Your task to perform on an android device: Go to Android settings Image 0: 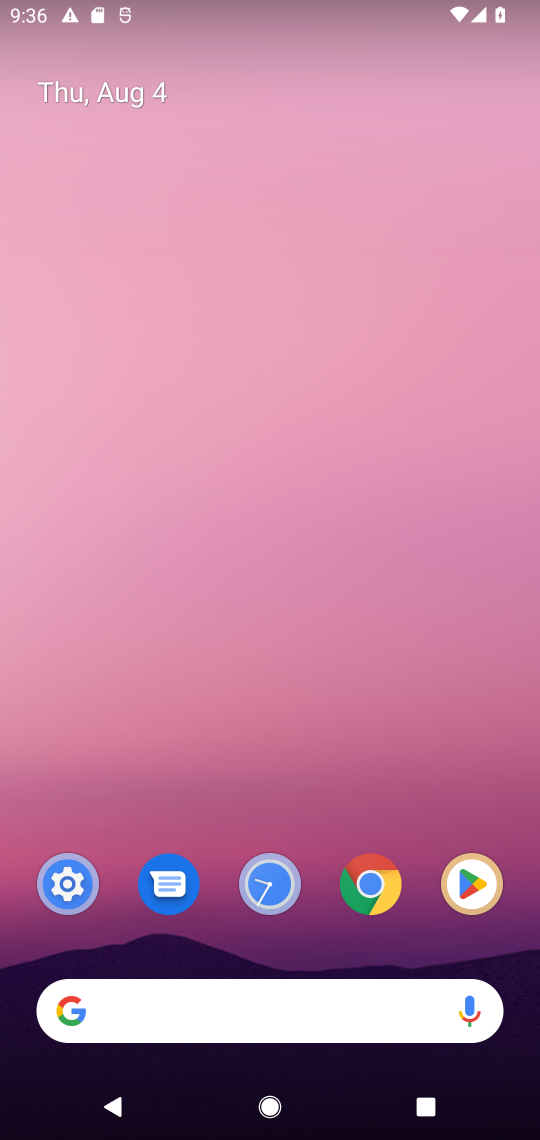
Step 0: drag from (223, 277) to (235, 18)
Your task to perform on an android device: Go to Android settings Image 1: 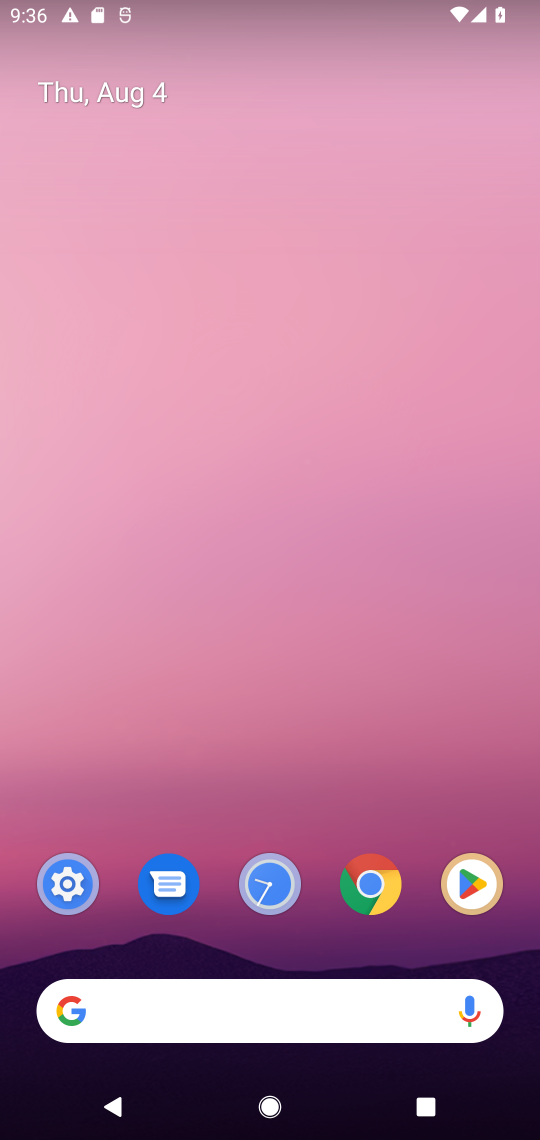
Step 1: drag from (353, 642) to (284, 53)
Your task to perform on an android device: Go to Android settings Image 2: 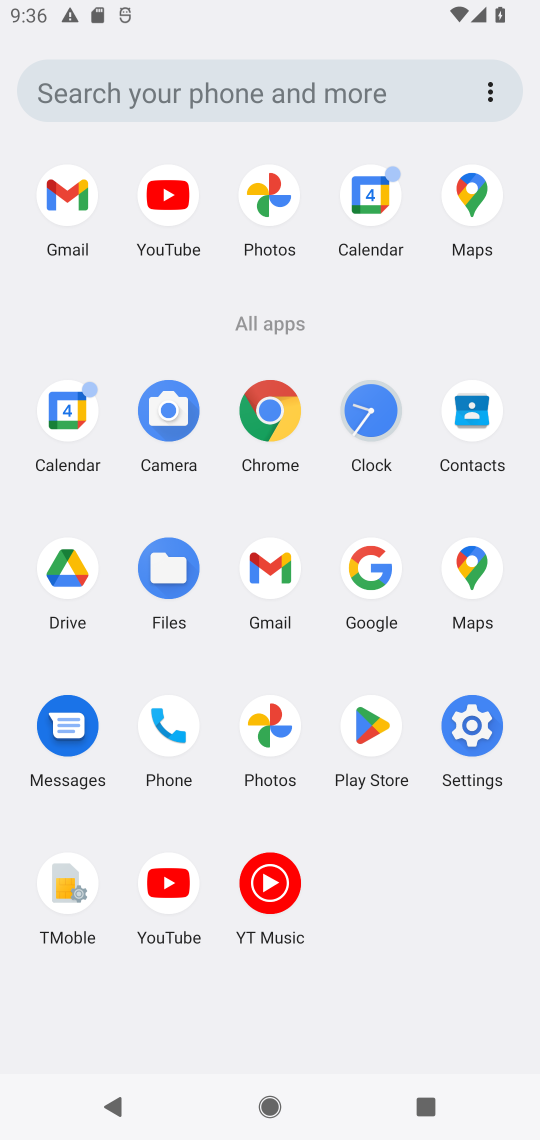
Step 2: click (464, 734)
Your task to perform on an android device: Go to Android settings Image 3: 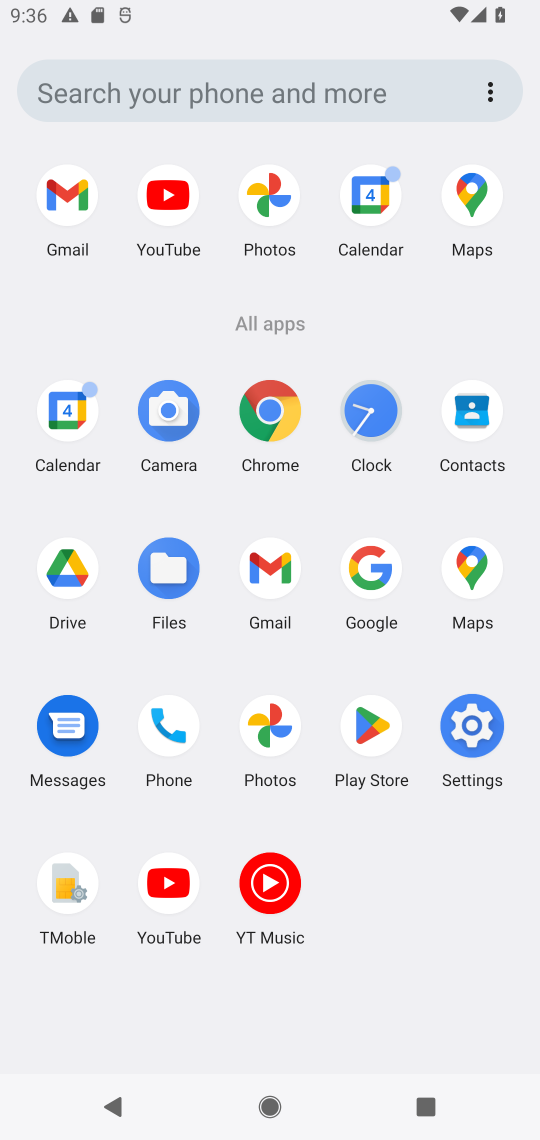
Step 3: click (464, 734)
Your task to perform on an android device: Go to Android settings Image 4: 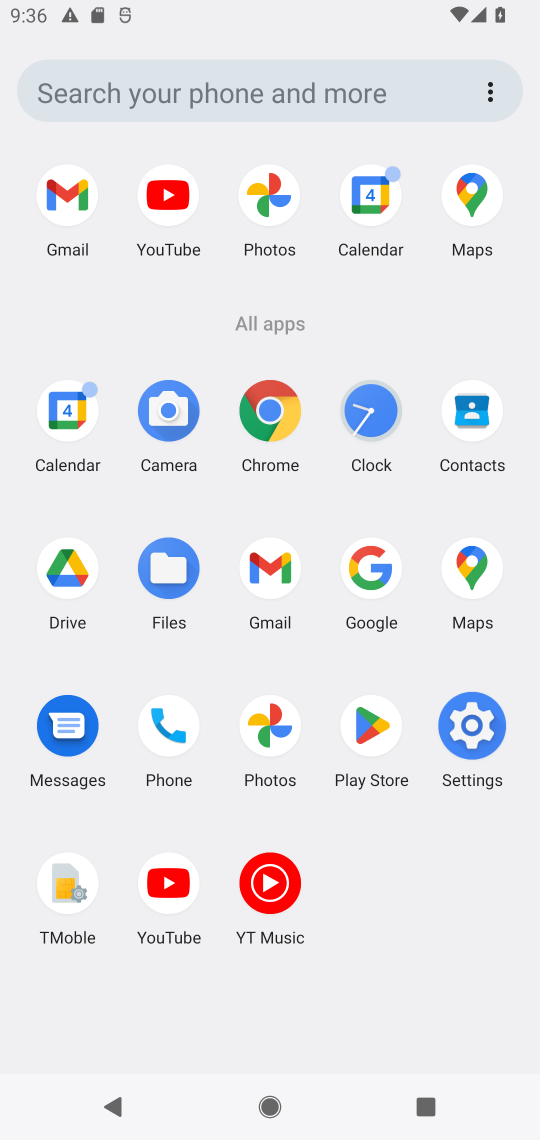
Step 4: click (464, 734)
Your task to perform on an android device: Go to Android settings Image 5: 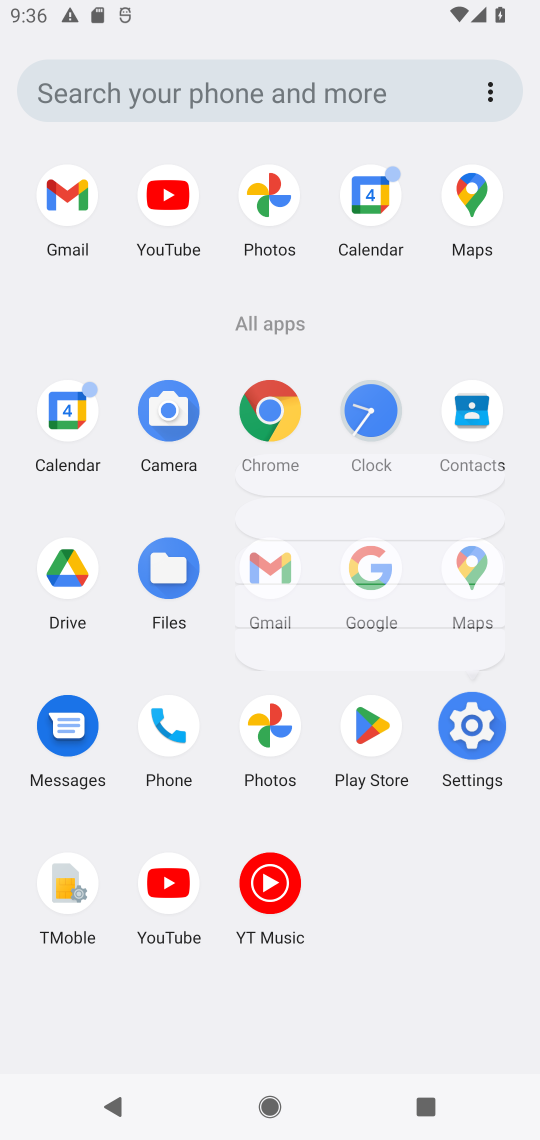
Step 5: click (464, 734)
Your task to perform on an android device: Go to Android settings Image 6: 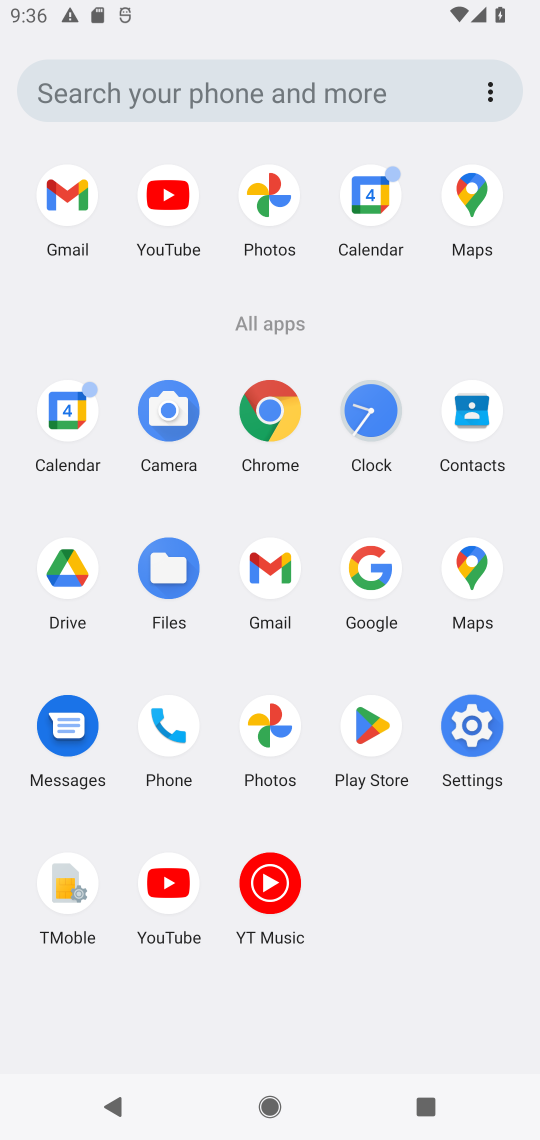
Step 6: click (464, 737)
Your task to perform on an android device: Go to Android settings Image 7: 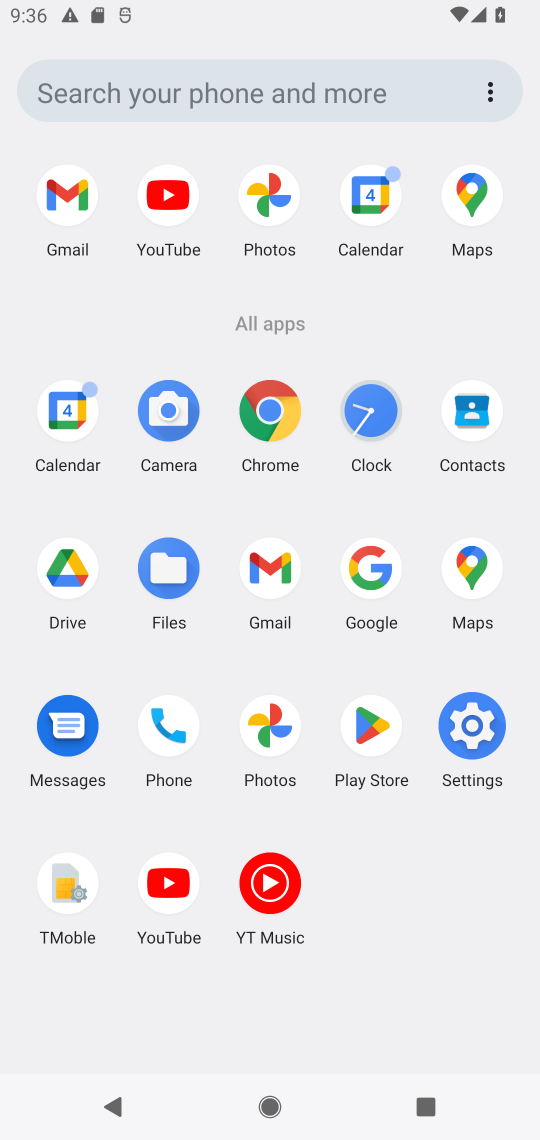
Step 7: click (457, 748)
Your task to perform on an android device: Go to Android settings Image 8: 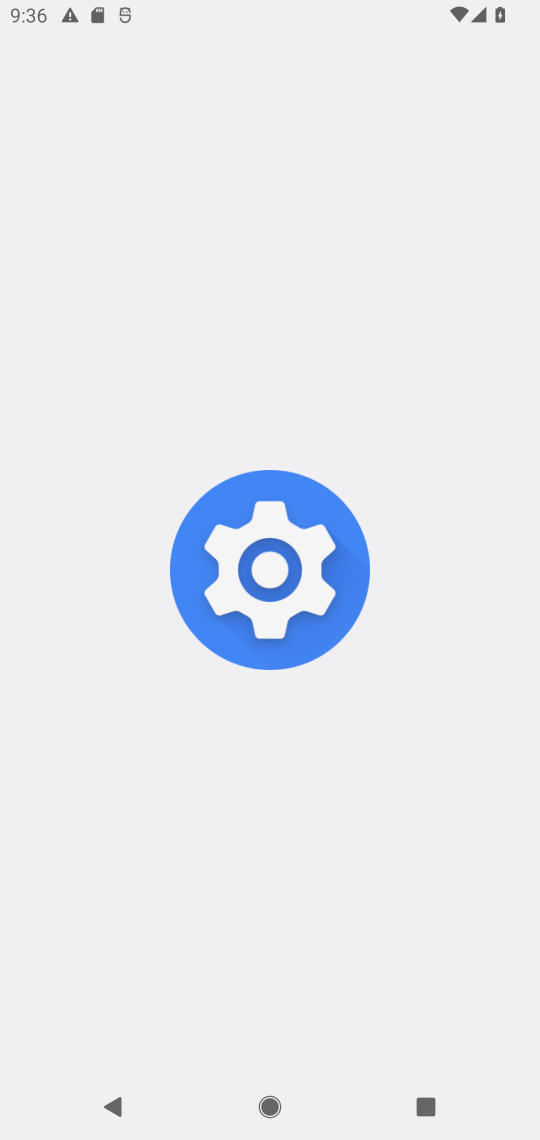
Step 8: click (459, 748)
Your task to perform on an android device: Go to Android settings Image 9: 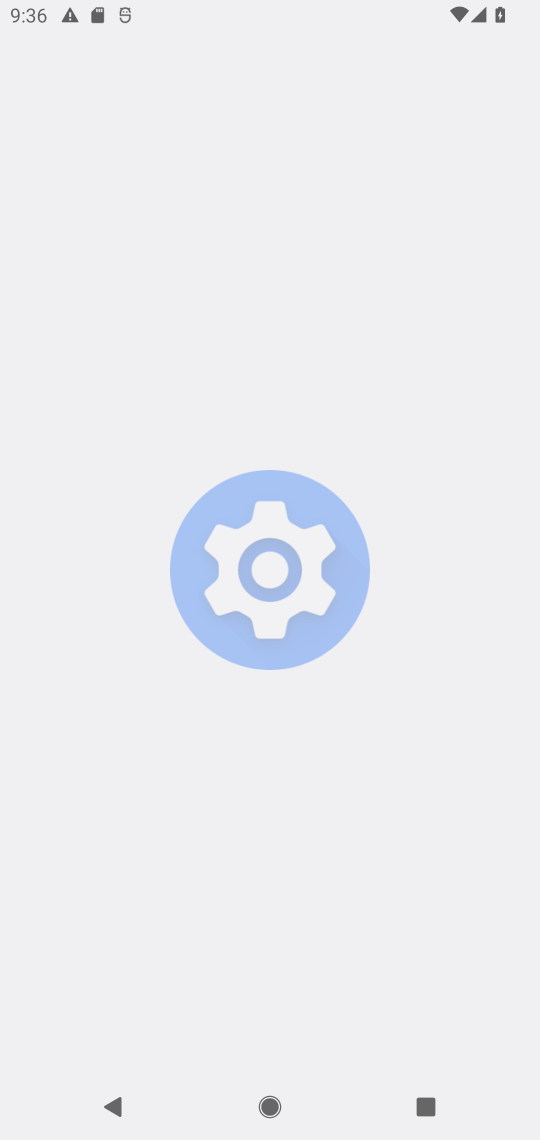
Step 9: click (463, 736)
Your task to perform on an android device: Go to Android settings Image 10: 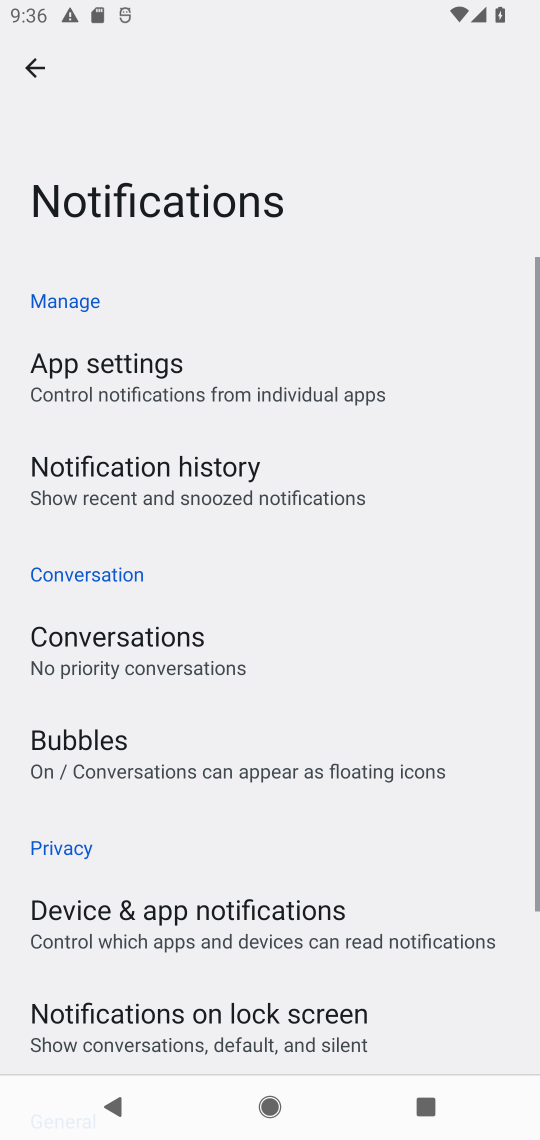
Step 10: drag from (302, 820) to (210, 217)
Your task to perform on an android device: Go to Android settings Image 11: 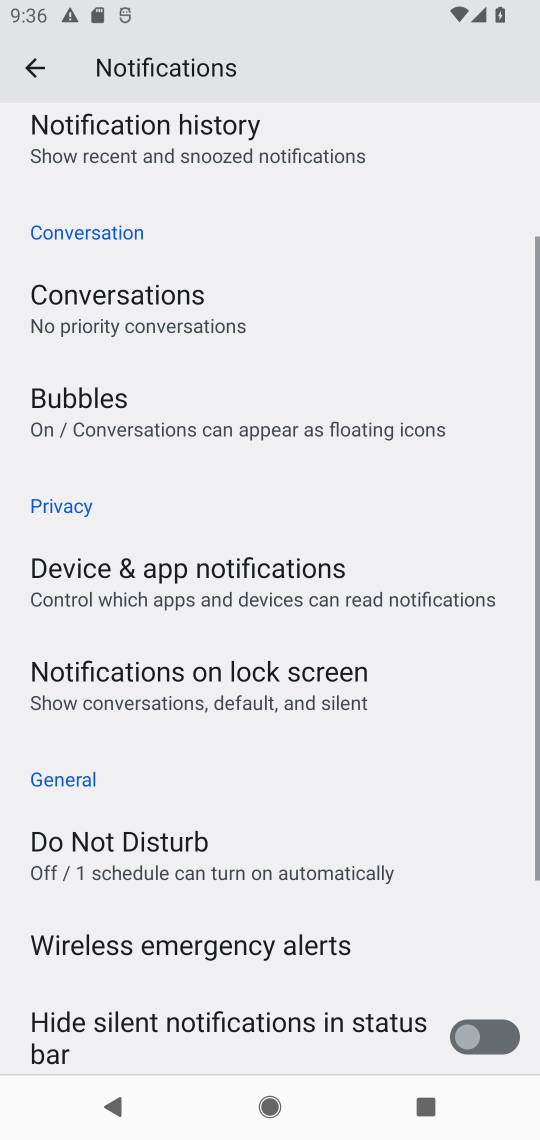
Step 11: drag from (204, 796) to (133, 330)
Your task to perform on an android device: Go to Android settings Image 12: 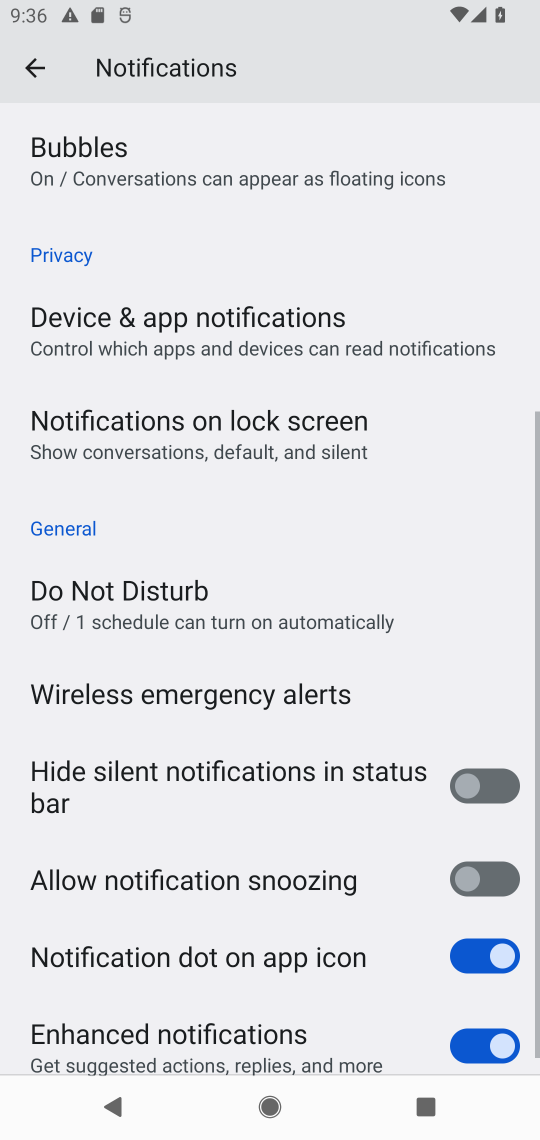
Step 12: drag from (65, 339) to (45, 178)
Your task to perform on an android device: Go to Android settings Image 13: 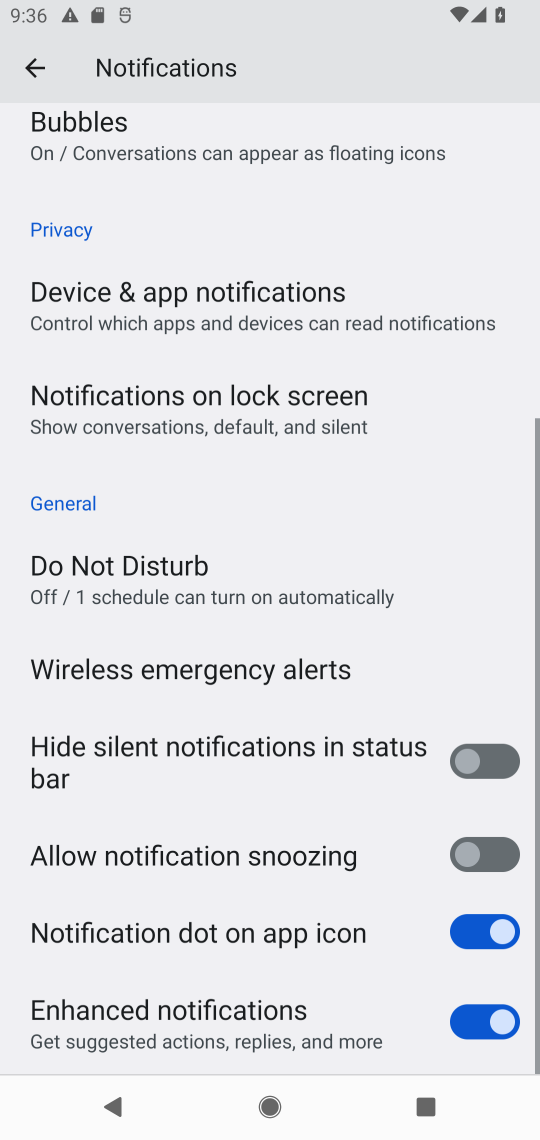
Step 13: drag from (120, 741) to (20, 199)
Your task to perform on an android device: Go to Android settings Image 14: 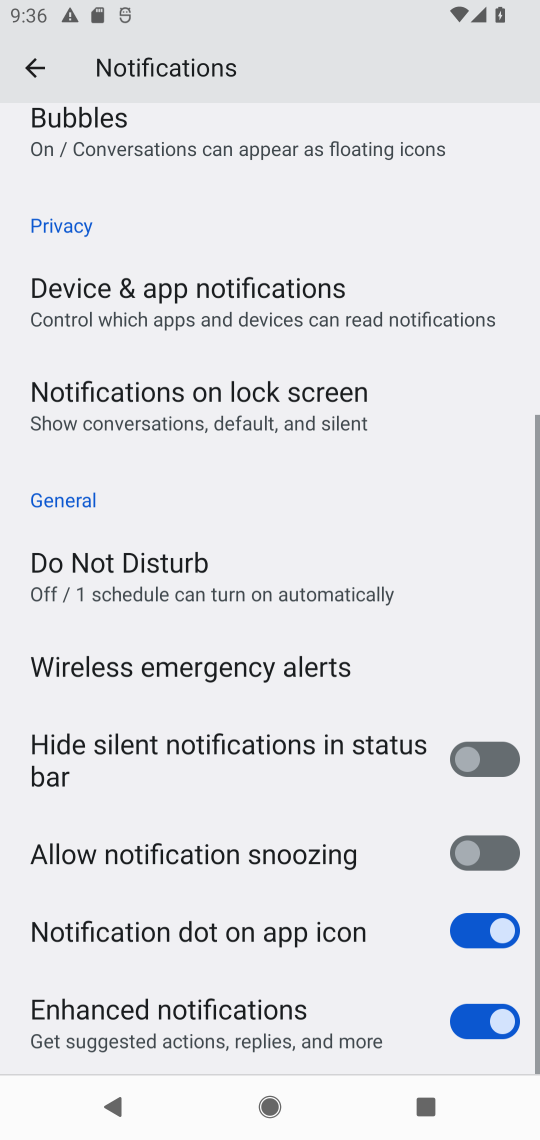
Step 14: drag from (134, 826) to (30, 479)
Your task to perform on an android device: Go to Android settings Image 15: 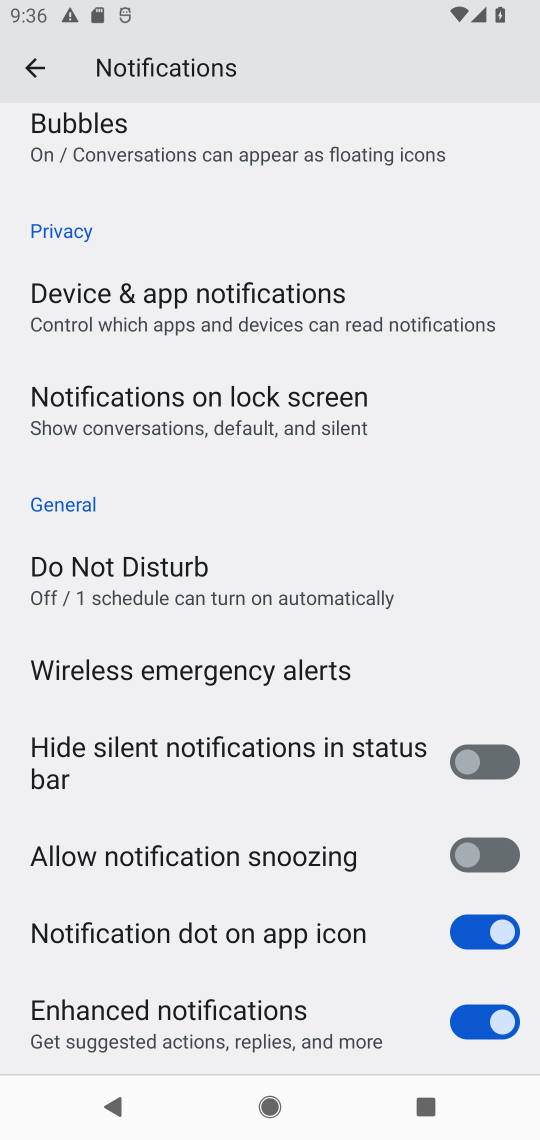
Step 15: drag from (213, 909) to (110, 96)
Your task to perform on an android device: Go to Android settings Image 16: 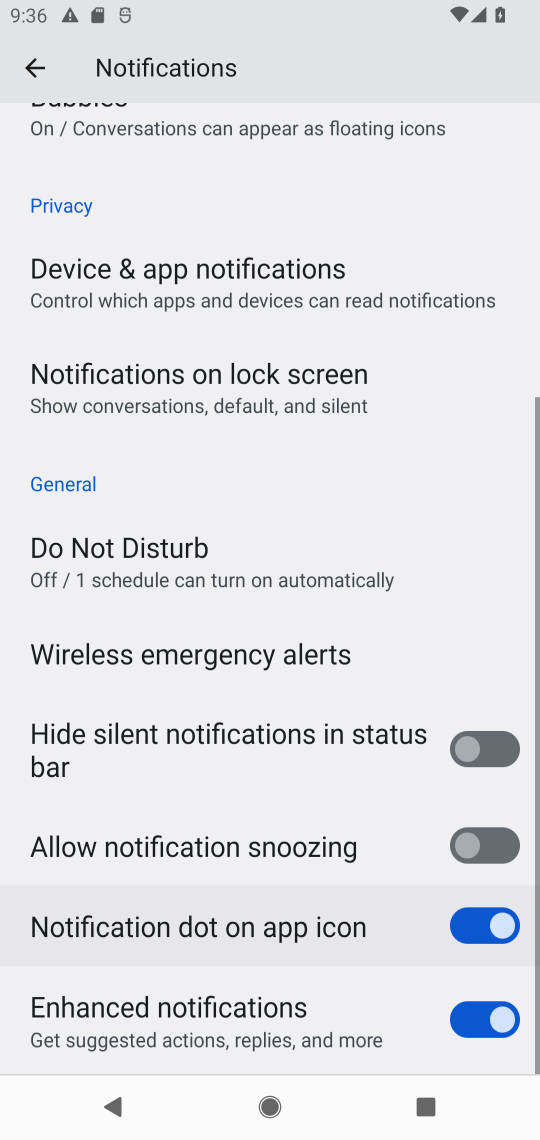
Step 16: click (32, 61)
Your task to perform on an android device: Go to Android settings Image 17: 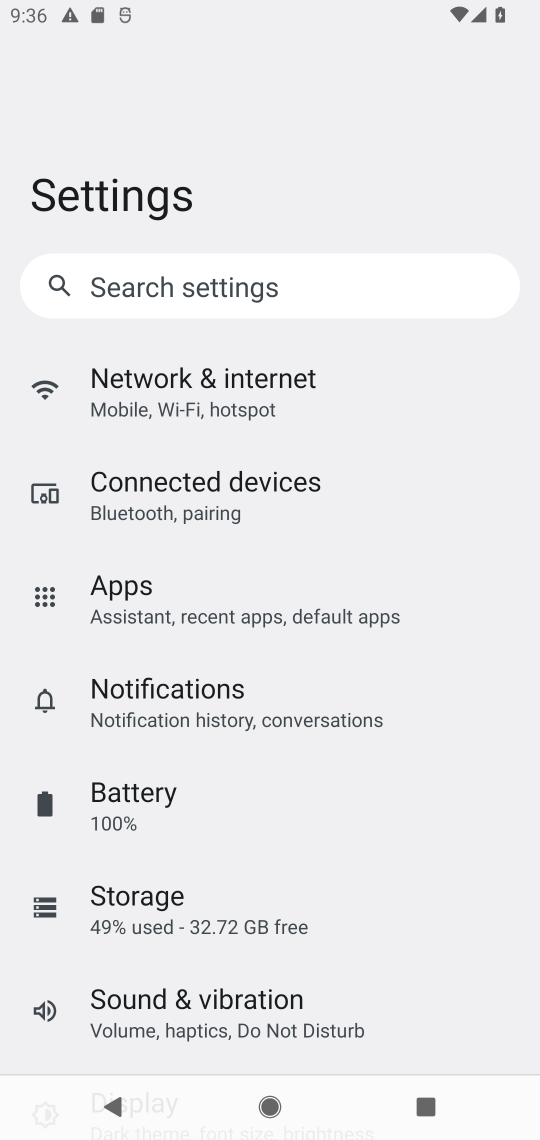
Step 17: drag from (292, 715) to (270, 418)
Your task to perform on an android device: Go to Android settings Image 18: 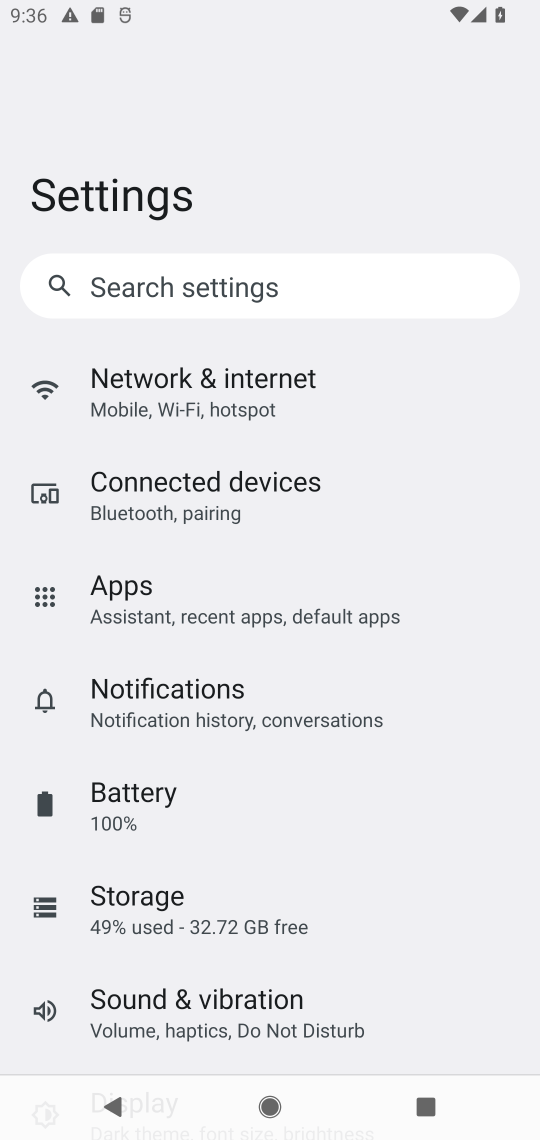
Step 18: drag from (189, 637) to (101, 327)
Your task to perform on an android device: Go to Android settings Image 19: 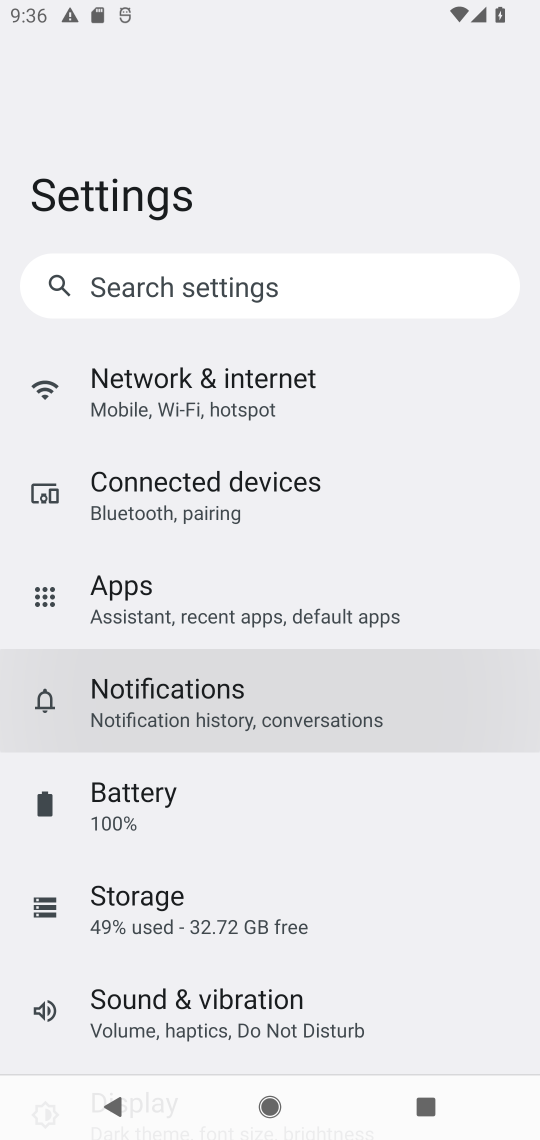
Step 19: click (71, 233)
Your task to perform on an android device: Go to Android settings Image 20: 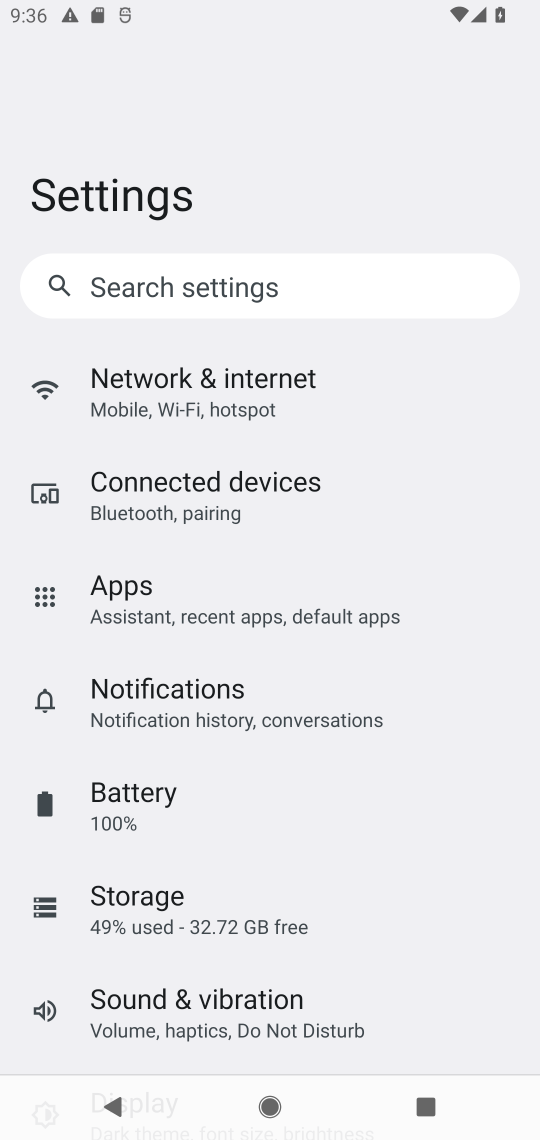
Step 20: task complete